Your task to perform on an android device: open app "LiveIn - Share Your Moment" Image 0: 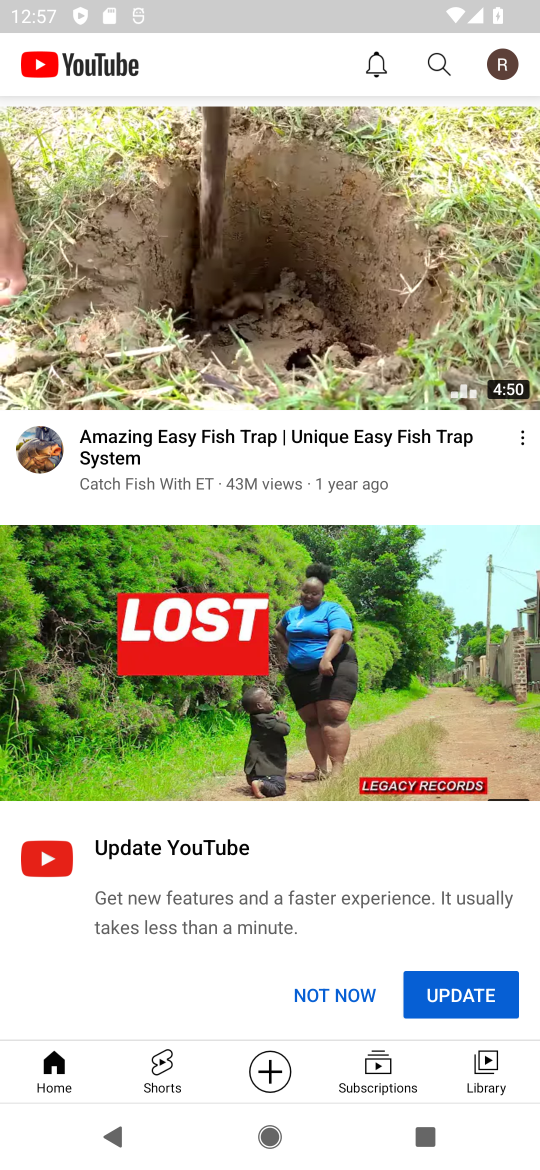
Step 0: press home button
Your task to perform on an android device: open app "LiveIn - Share Your Moment" Image 1: 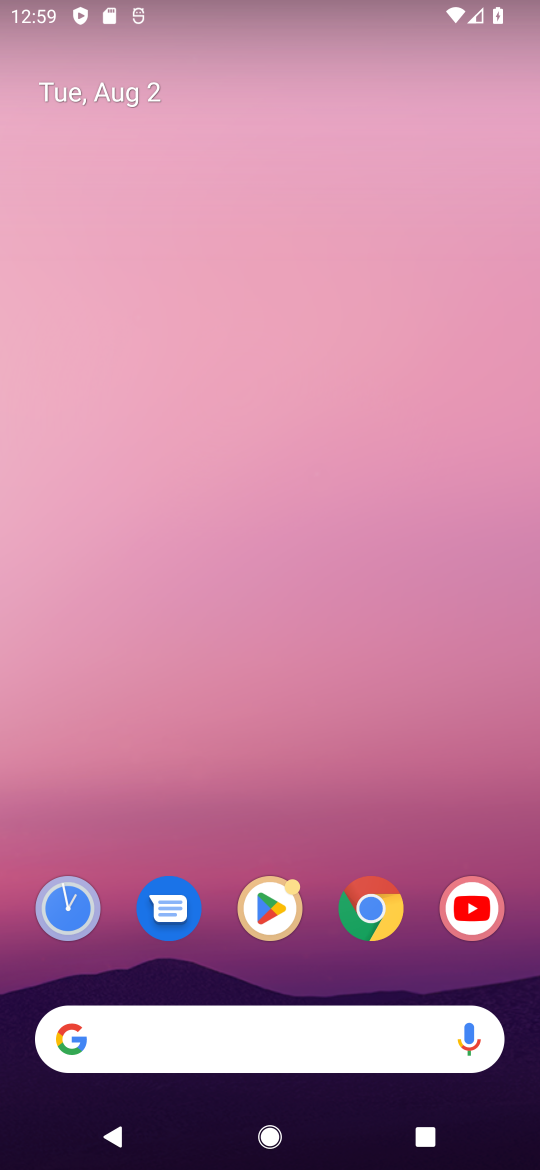
Step 1: click (280, 907)
Your task to perform on an android device: open app "LiveIn - Share Your Moment" Image 2: 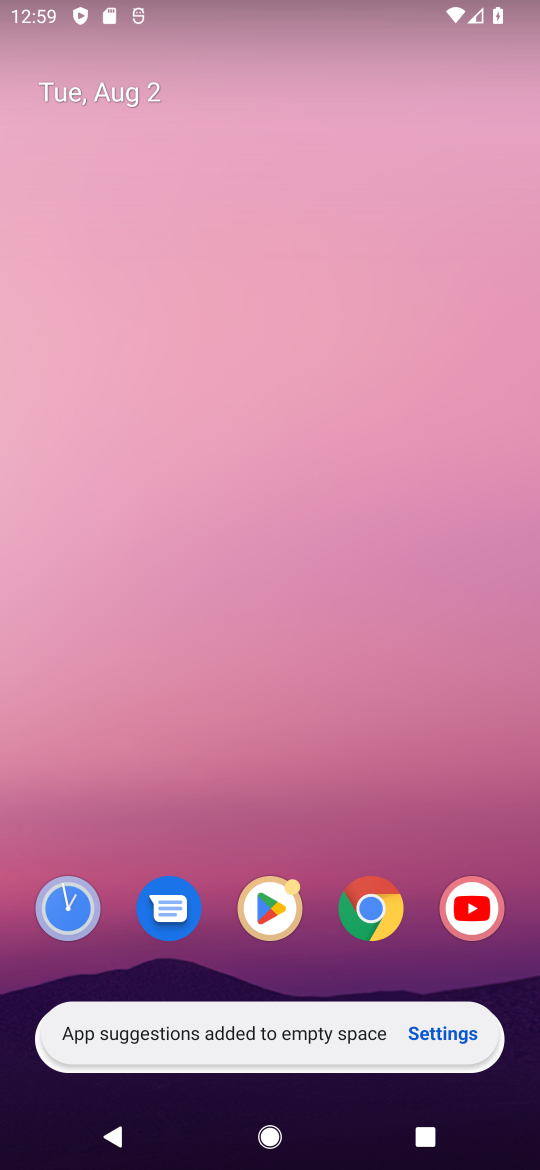
Step 2: click (269, 902)
Your task to perform on an android device: open app "LiveIn - Share Your Moment" Image 3: 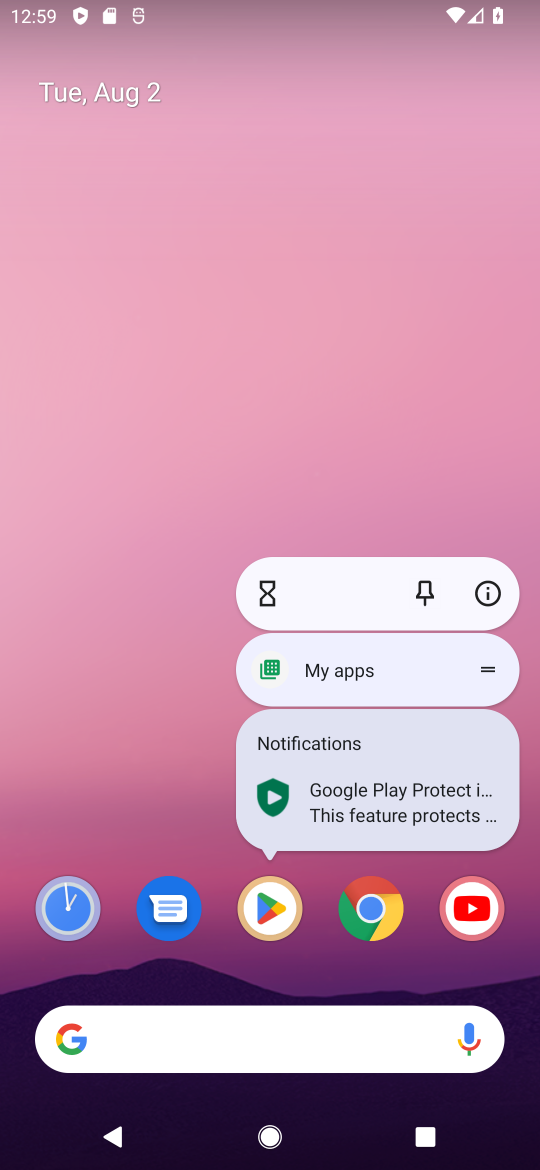
Step 3: click (284, 896)
Your task to perform on an android device: open app "LiveIn - Share Your Moment" Image 4: 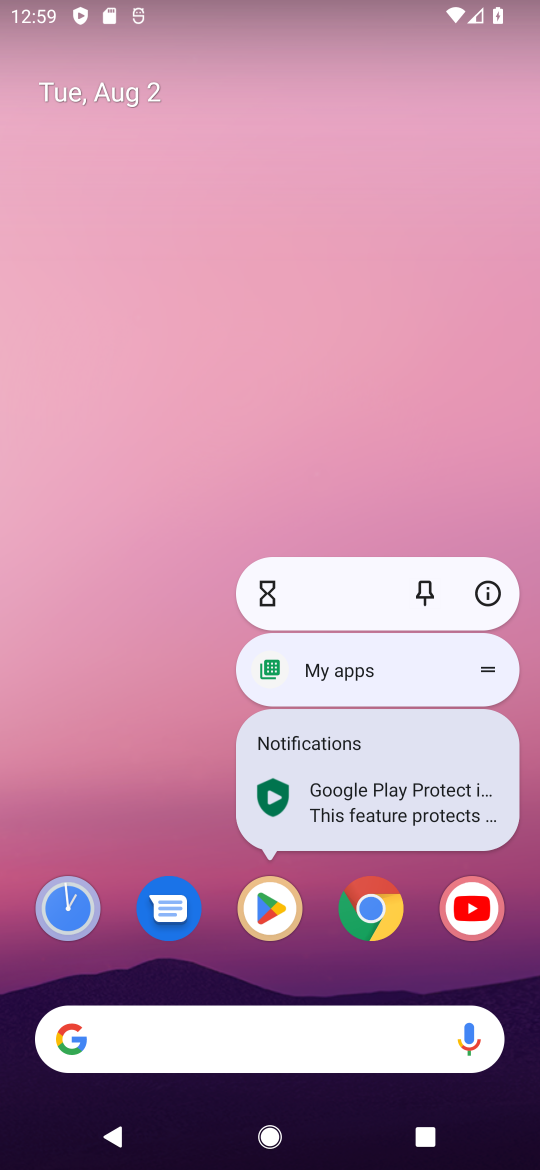
Step 4: click (246, 925)
Your task to perform on an android device: open app "LiveIn - Share Your Moment" Image 5: 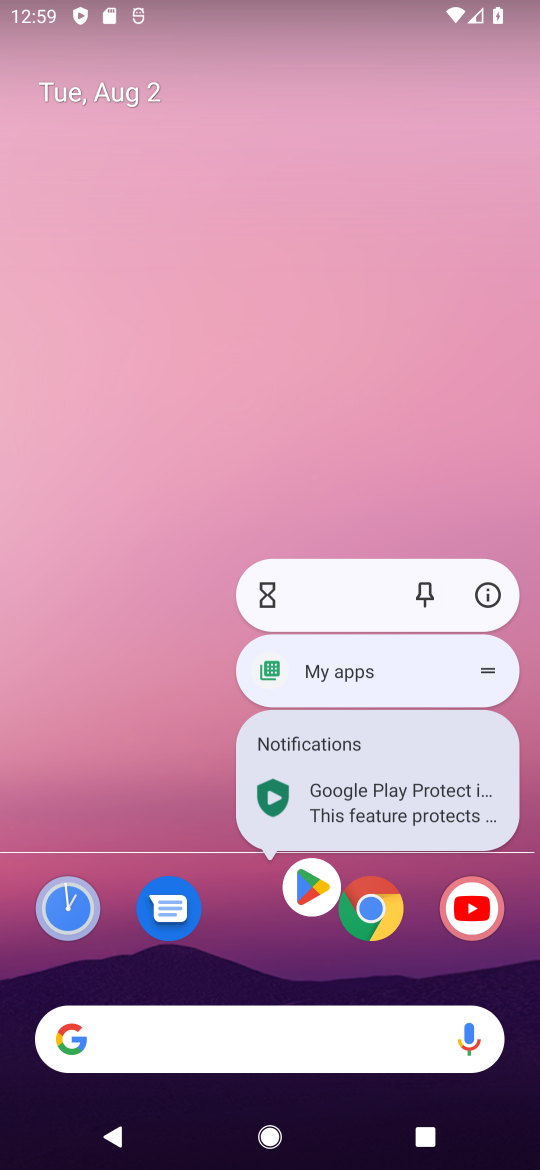
Step 5: click (244, 891)
Your task to perform on an android device: open app "LiveIn - Share Your Moment" Image 6: 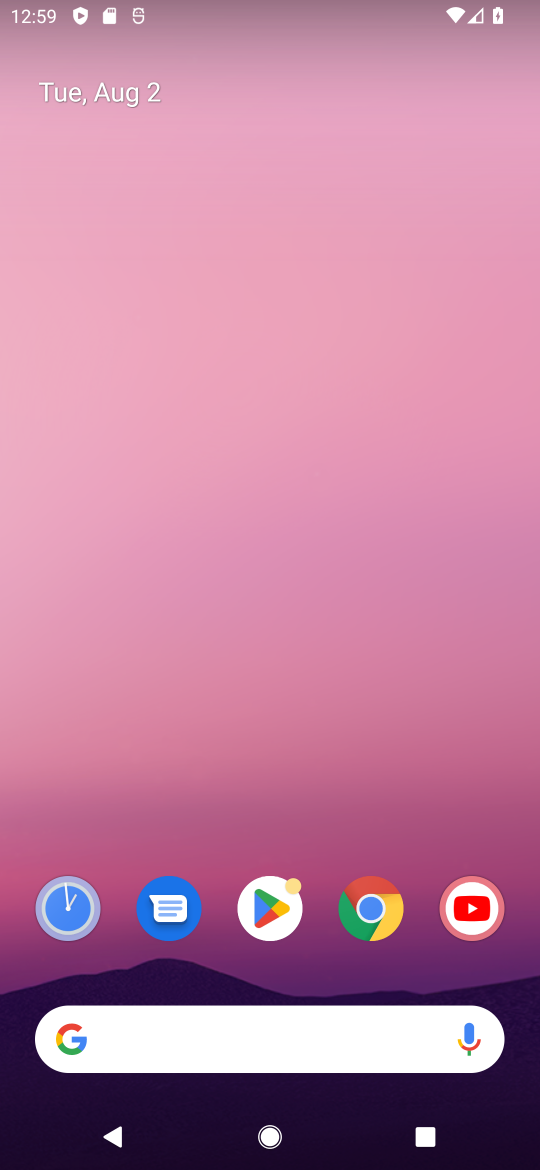
Step 6: click (268, 912)
Your task to perform on an android device: open app "LiveIn - Share Your Moment" Image 7: 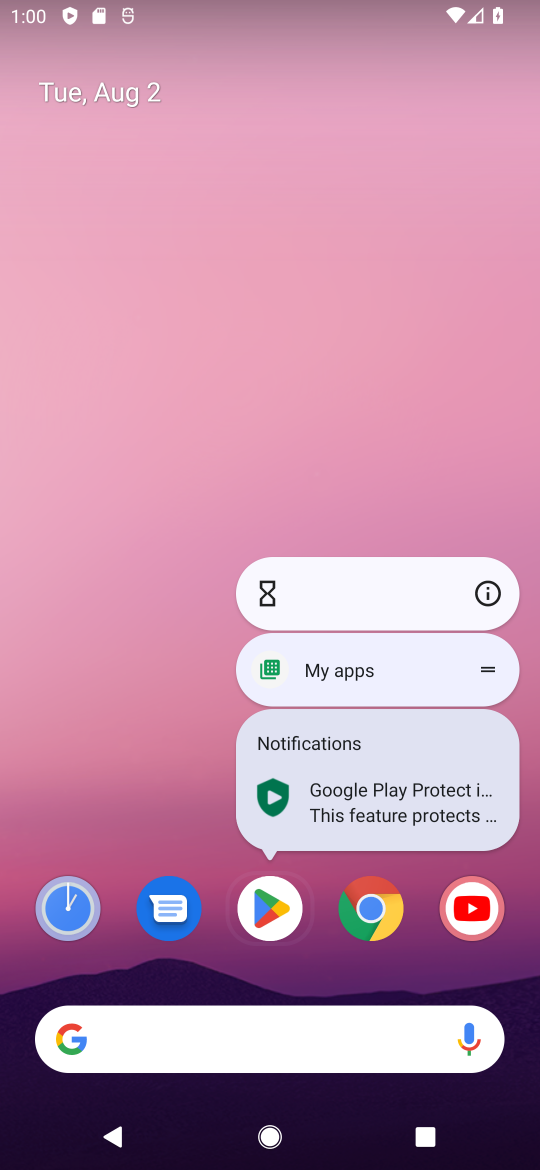
Step 7: click (271, 926)
Your task to perform on an android device: open app "LiveIn - Share Your Moment" Image 8: 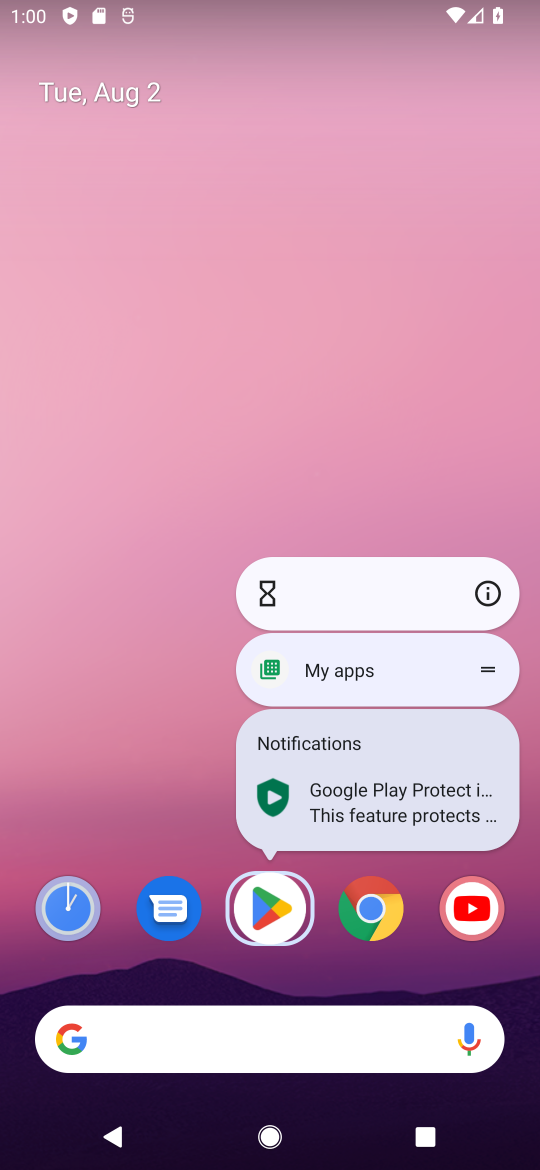
Step 8: click (271, 926)
Your task to perform on an android device: open app "LiveIn - Share Your Moment" Image 9: 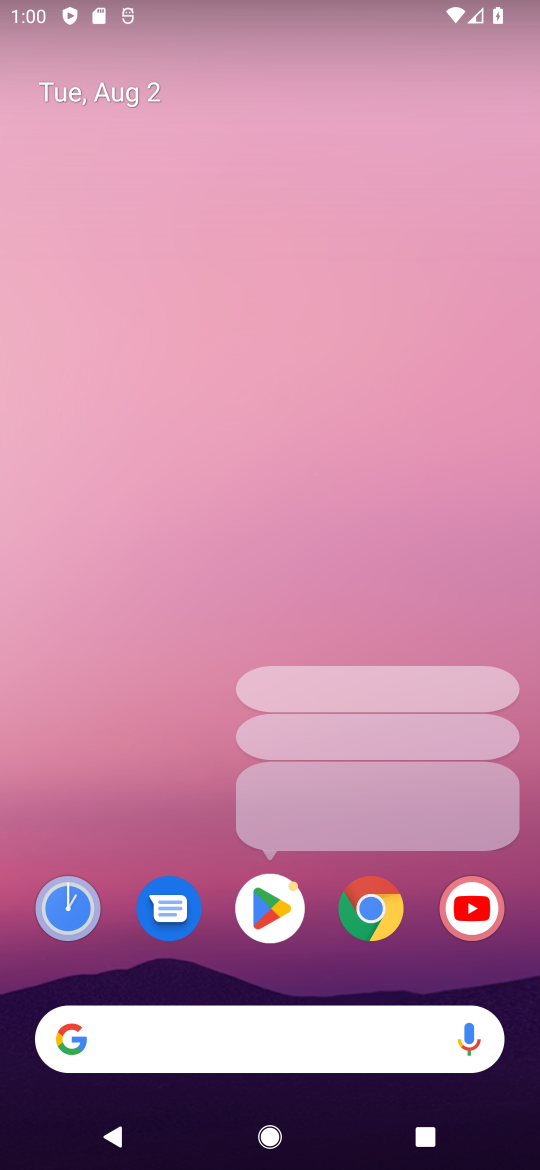
Step 9: click (260, 915)
Your task to perform on an android device: open app "LiveIn - Share Your Moment" Image 10: 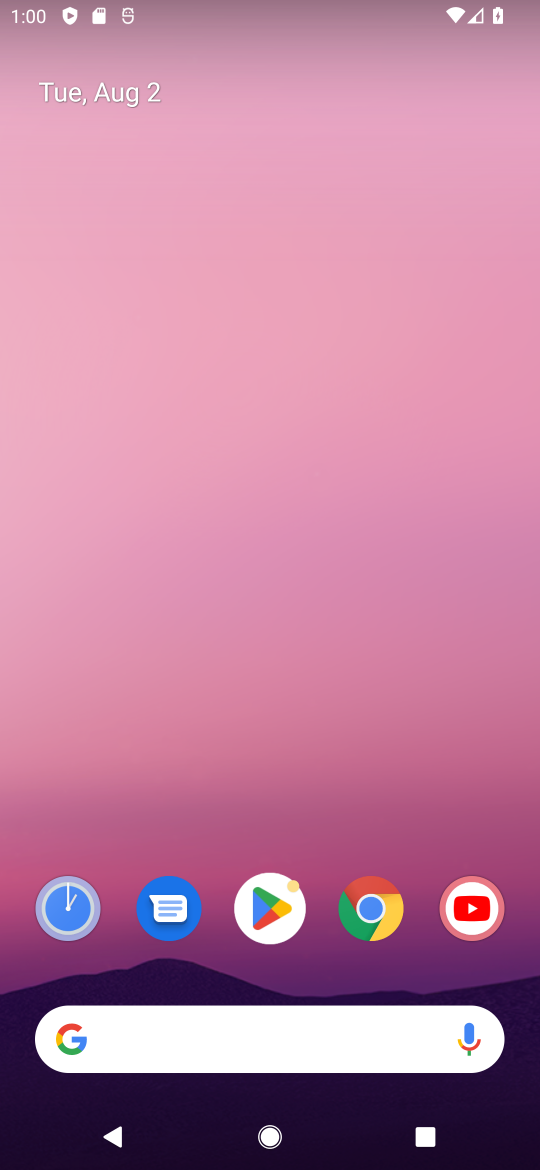
Step 10: click (260, 915)
Your task to perform on an android device: open app "LiveIn - Share Your Moment" Image 11: 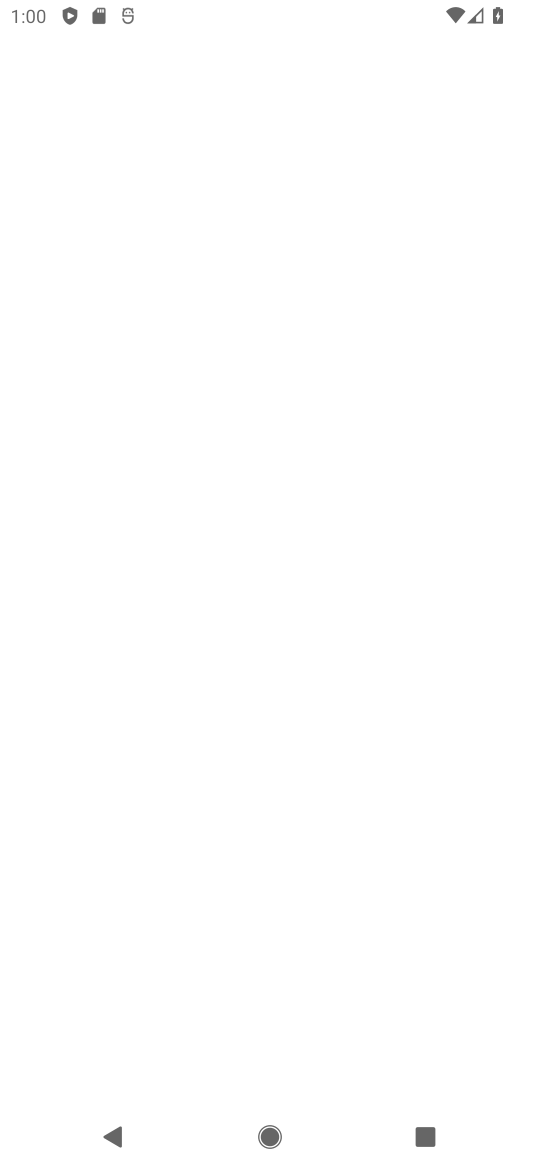
Step 11: click (260, 915)
Your task to perform on an android device: open app "LiveIn - Share Your Moment" Image 12: 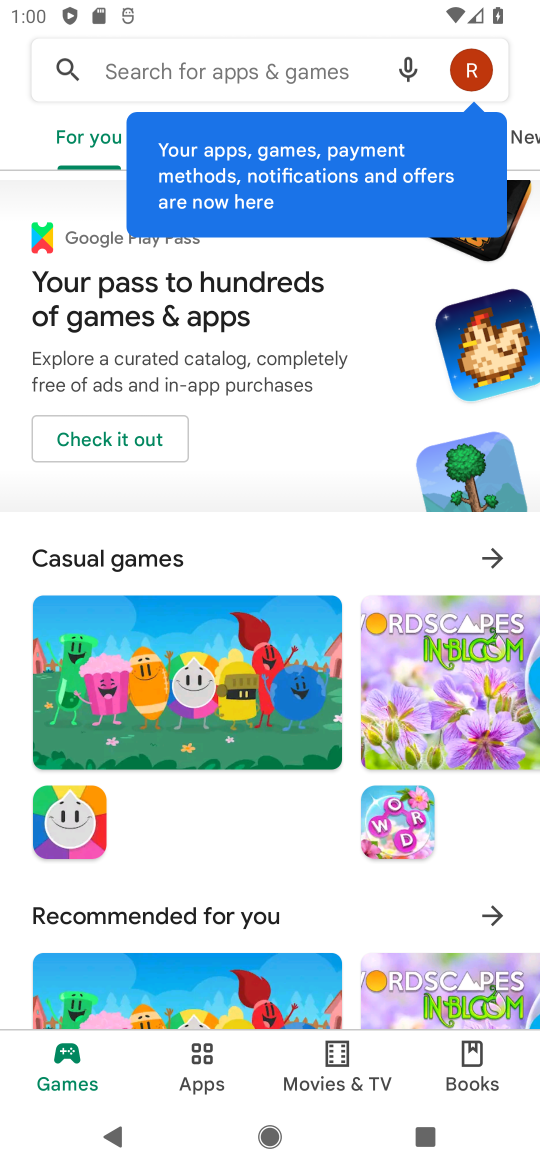
Step 12: click (283, 73)
Your task to perform on an android device: open app "LiveIn - Share Your Moment" Image 13: 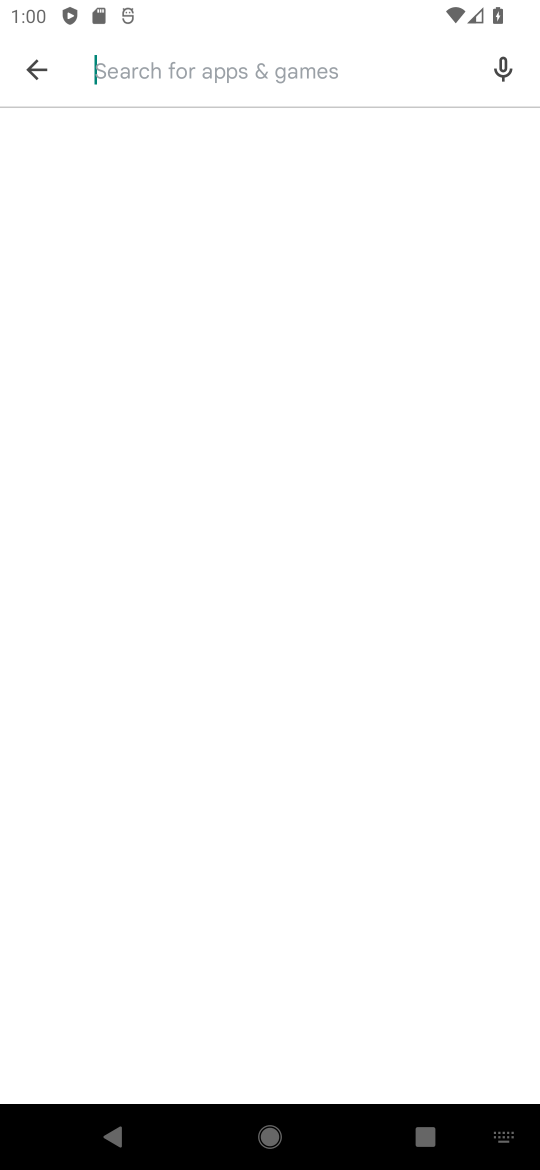
Step 13: type "livein share your moment"
Your task to perform on an android device: open app "LiveIn - Share Your Moment" Image 14: 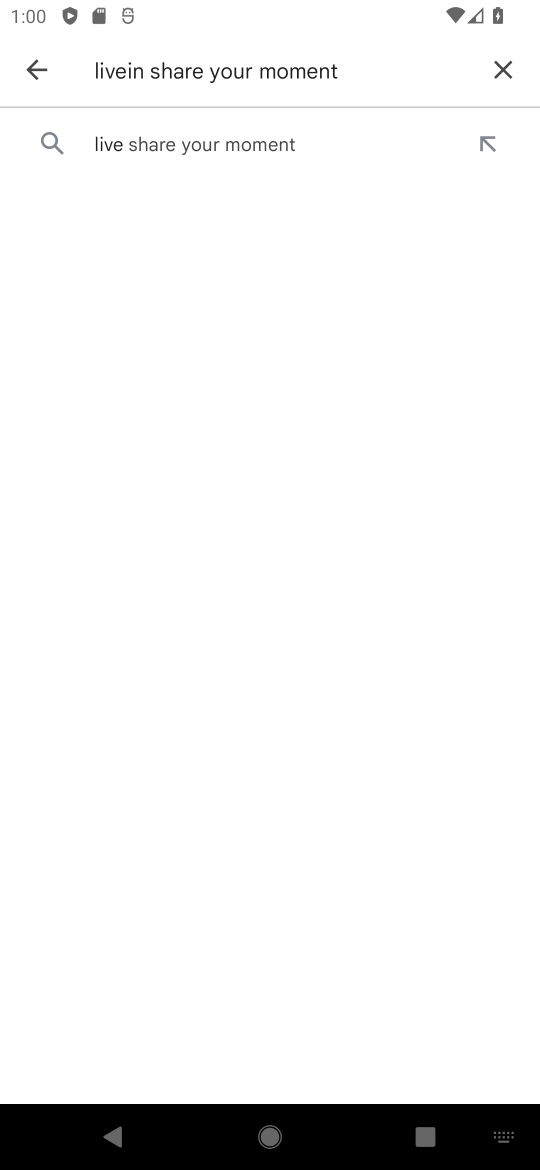
Step 14: click (294, 136)
Your task to perform on an android device: open app "LiveIn - Share Your Moment" Image 15: 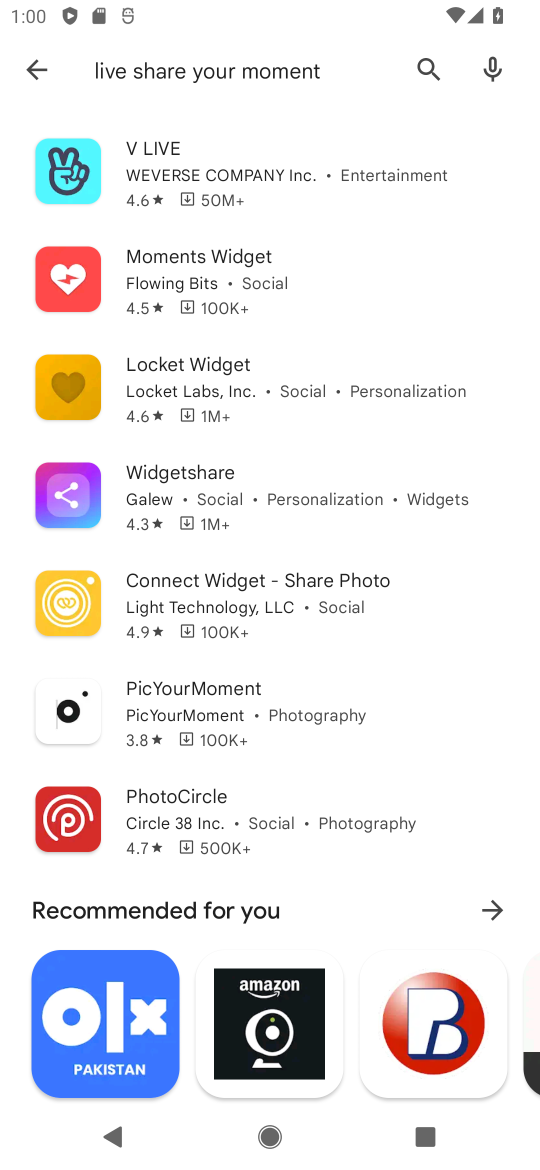
Step 15: task complete